Your task to perform on an android device: turn on javascript in the chrome app Image 0: 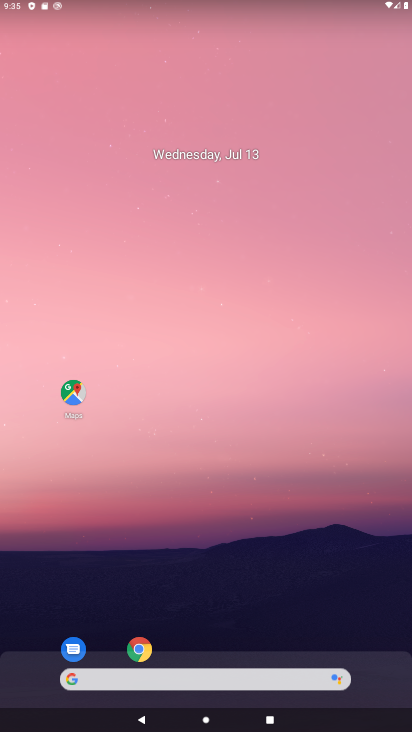
Step 0: click (136, 650)
Your task to perform on an android device: turn on javascript in the chrome app Image 1: 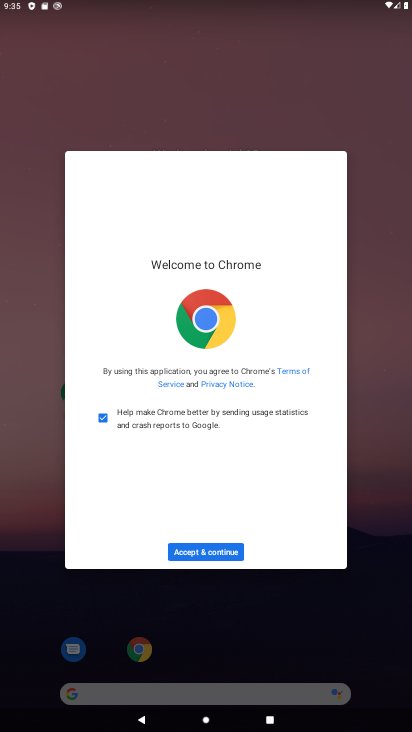
Step 1: click (214, 545)
Your task to perform on an android device: turn on javascript in the chrome app Image 2: 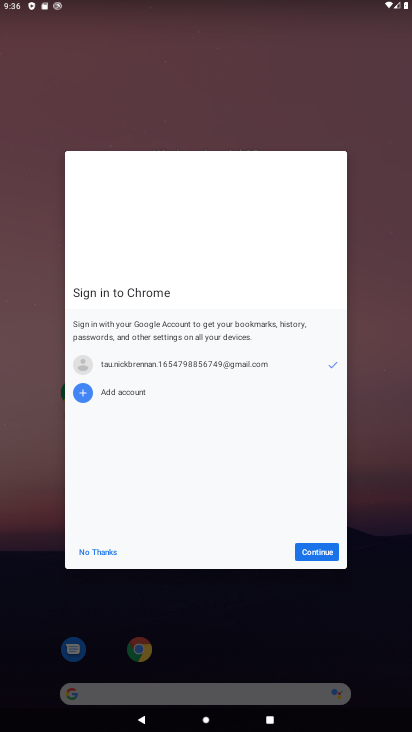
Step 2: click (311, 552)
Your task to perform on an android device: turn on javascript in the chrome app Image 3: 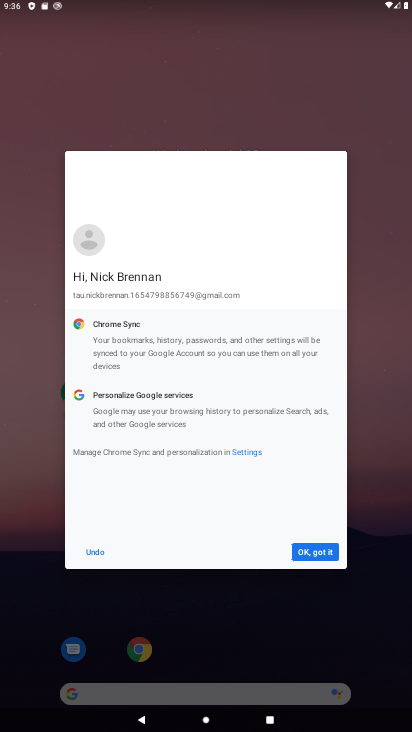
Step 3: click (311, 552)
Your task to perform on an android device: turn on javascript in the chrome app Image 4: 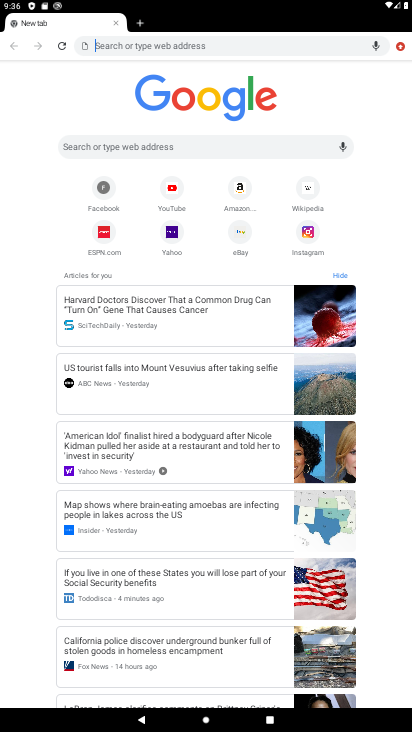
Step 4: click (400, 44)
Your task to perform on an android device: turn on javascript in the chrome app Image 5: 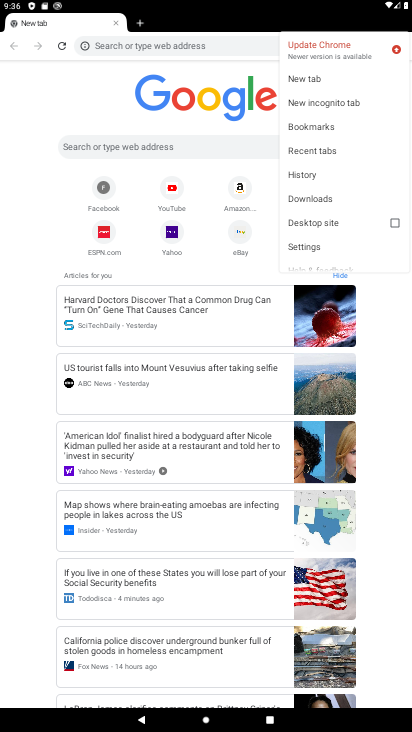
Step 5: click (300, 240)
Your task to perform on an android device: turn on javascript in the chrome app Image 6: 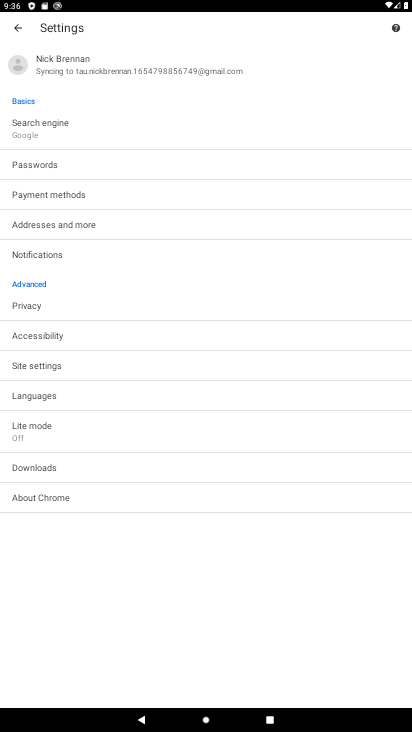
Step 6: click (89, 362)
Your task to perform on an android device: turn on javascript in the chrome app Image 7: 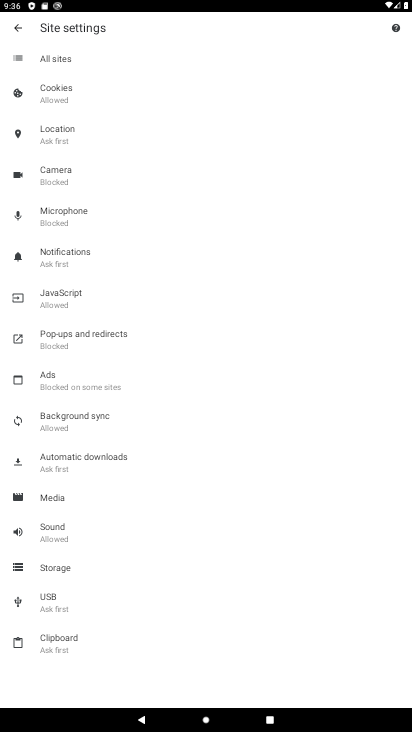
Step 7: click (69, 291)
Your task to perform on an android device: turn on javascript in the chrome app Image 8: 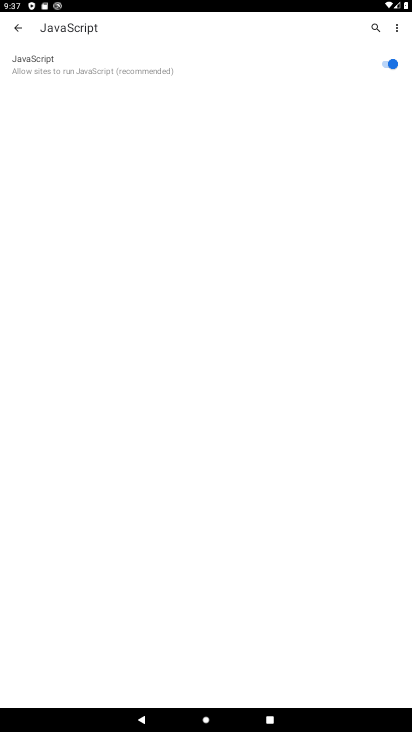
Step 8: task complete